Your task to perform on an android device: show emergency info Image 0: 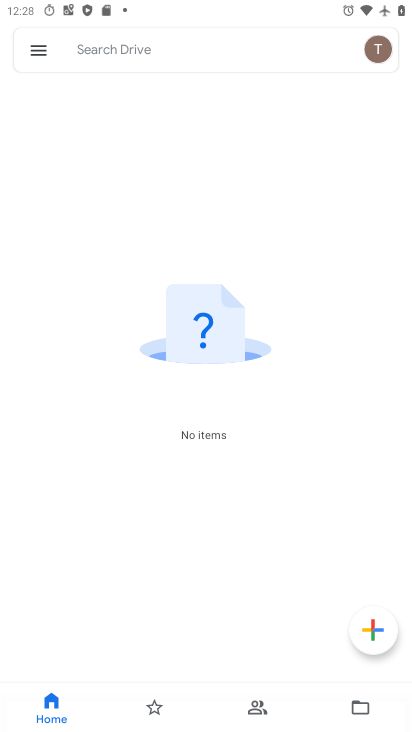
Step 0: press home button
Your task to perform on an android device: show emergency info Image 1: 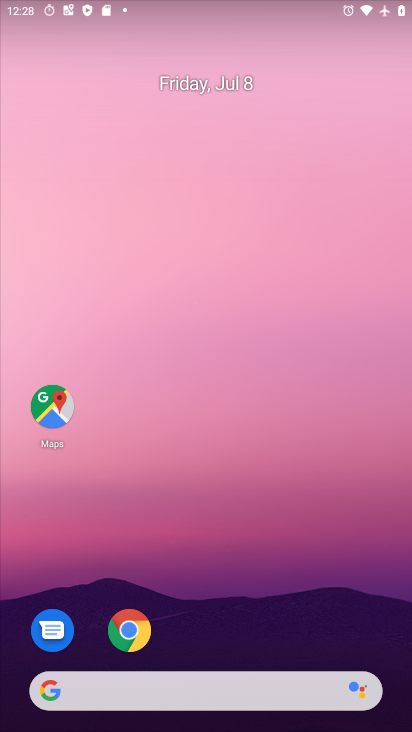
Step 1: drag from (202, 644) to (222, 185)
Your task to perform on an android device: show emergency info Image 2: 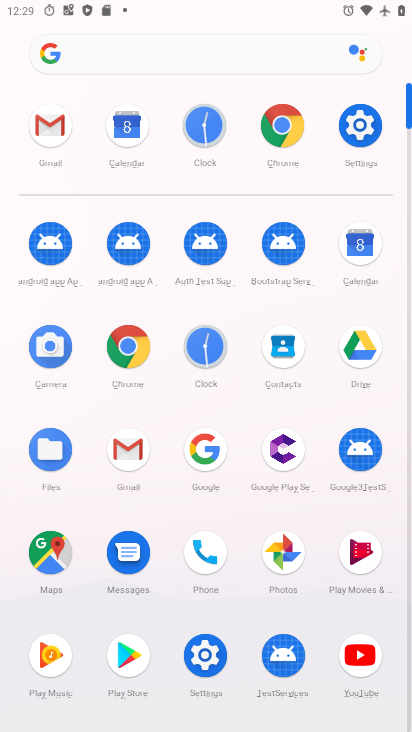
Step 2: click (345, 130)
Your task to perform on an android device: show emergency info Image 3: 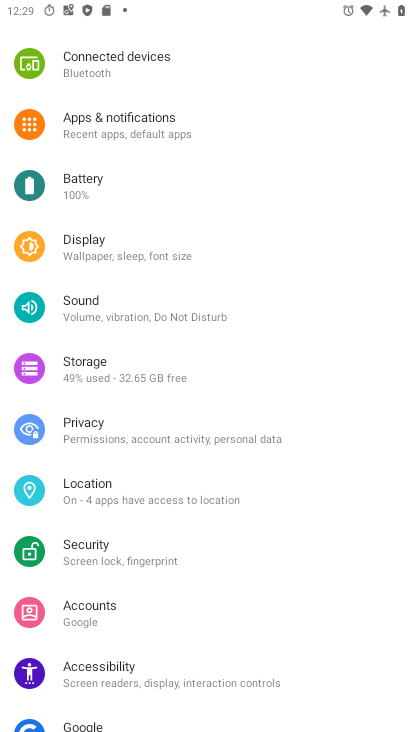
Step 3: drag from (126, 636) to (191, 257)
Your task to perform on an android device: show emergency info Image 4: 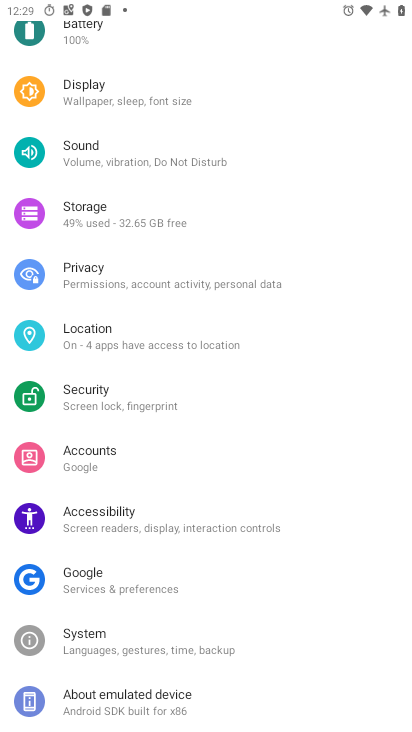
Step 4: click (133, 702)
Your task to perform on an android device: show emergency info Image 5: 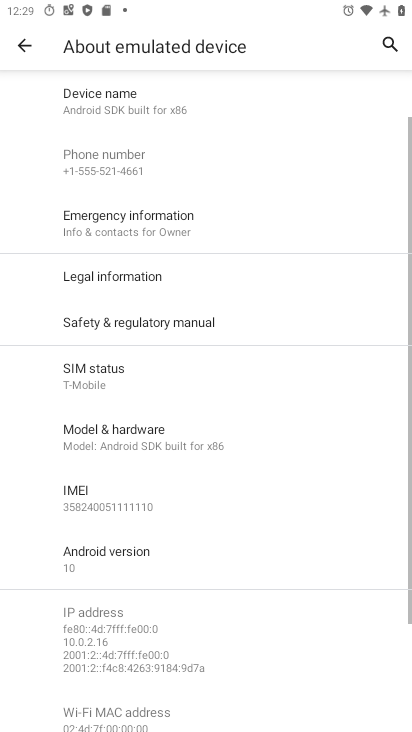
Step 5: click (135, 206)
Your task to perform on an android device: show emergency info Image 6: 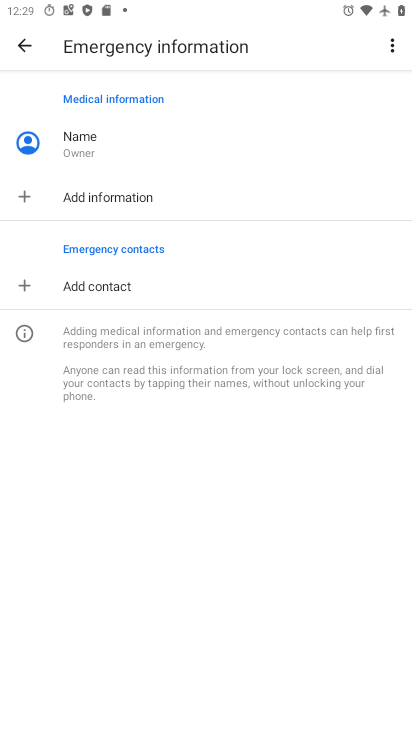
Step 6: task complete